Your task to perform on an android device: toggle location history Image 0: 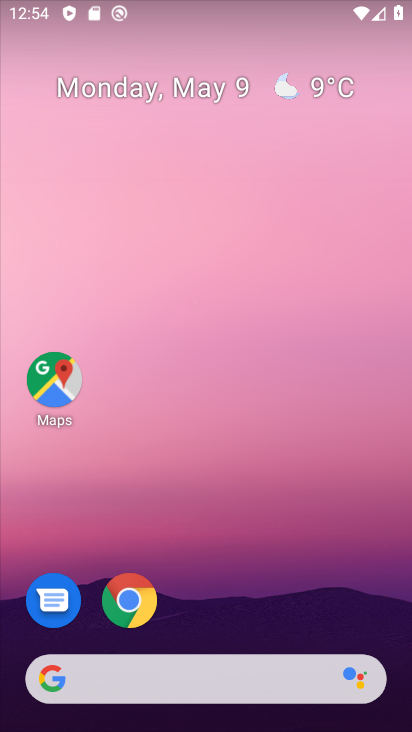
Step 0: drag from (201, 654) to (222, 371)
Your task to perform on an android device: toggle location history Image 1: 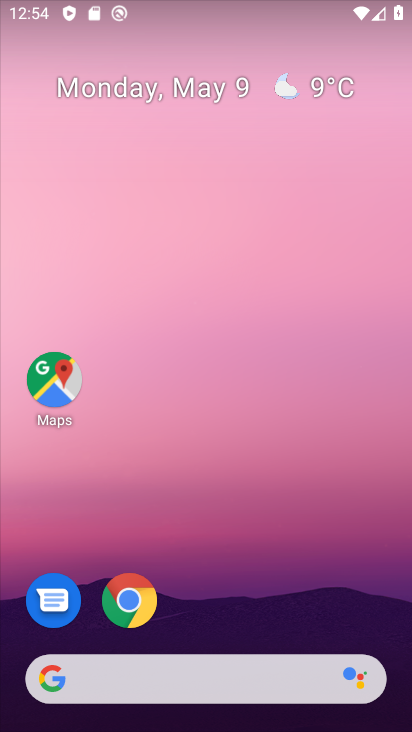
Step 1: drag from (223, 652) to (394, 90)
Your task to perform on an android device: toggle location history Image 2: 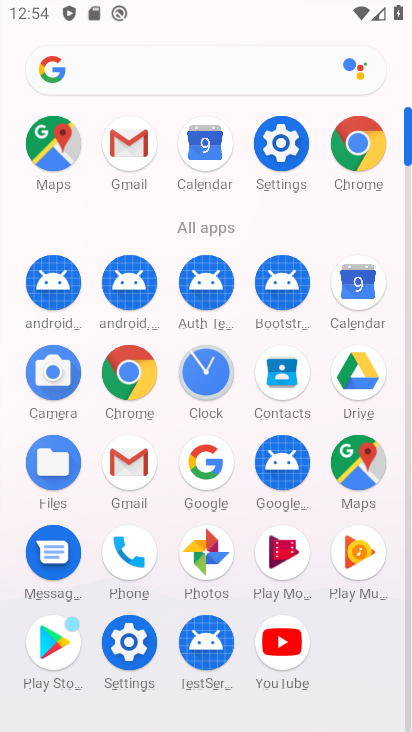
Step 2: click (129, 644)
Your task to perform on an android device: toggle location history Image 3: 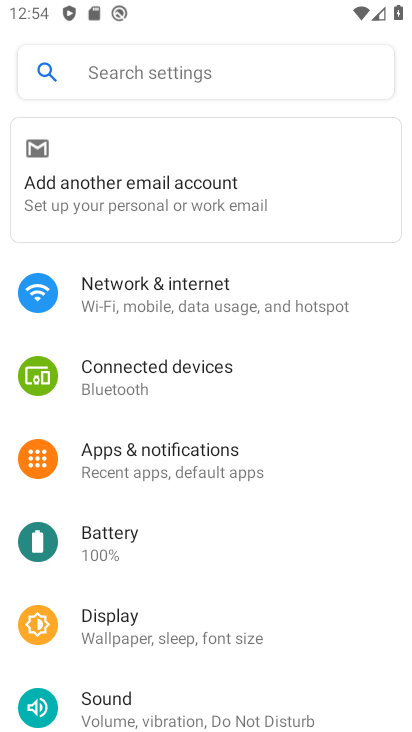
Step 3: drag from (158, 655) to (198, 513)
Your task to perform on an android device: toggle location history Image 4: 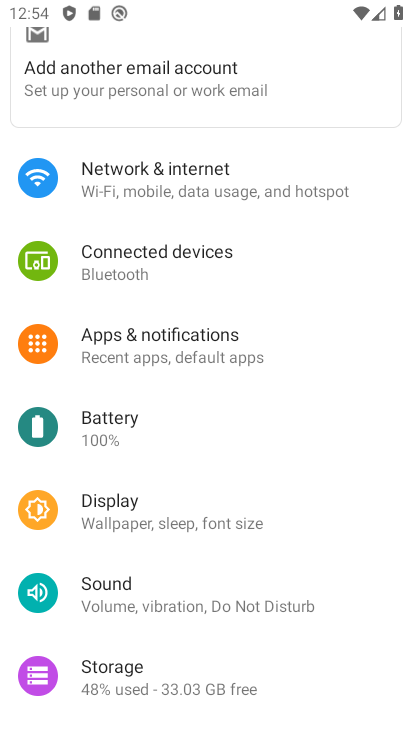
Step 4: drag from (176, 608) to (238, 427)
Your task to perform on an android device: toggle location history Image 5: 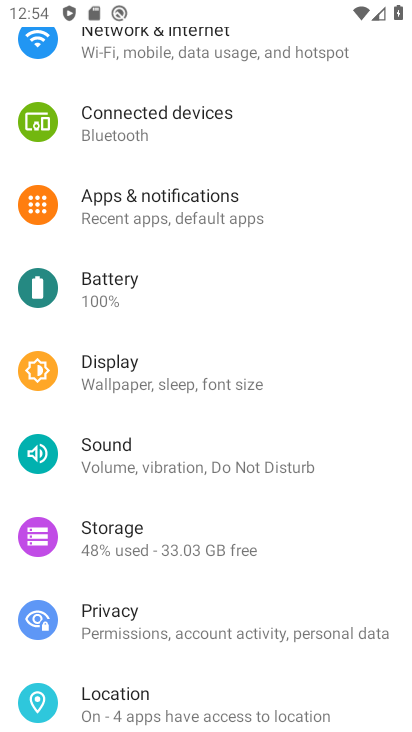
Step 5: click (211, 686)
Your task to perform on an android device: toggle location history Image 6: 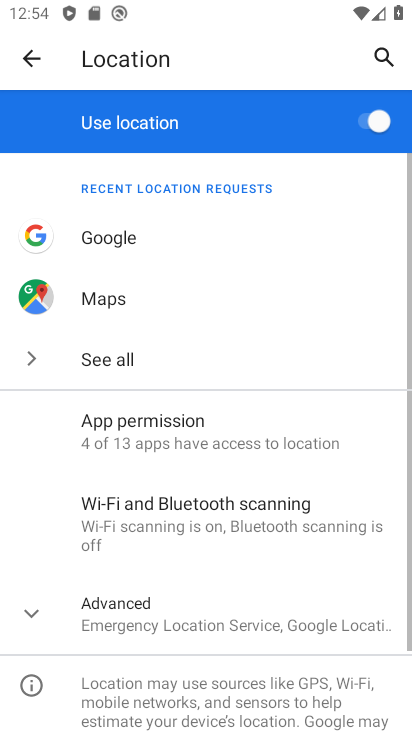
Step 6: click (281, 635)
Your task to perform on an android device: toggle location history Image 7: 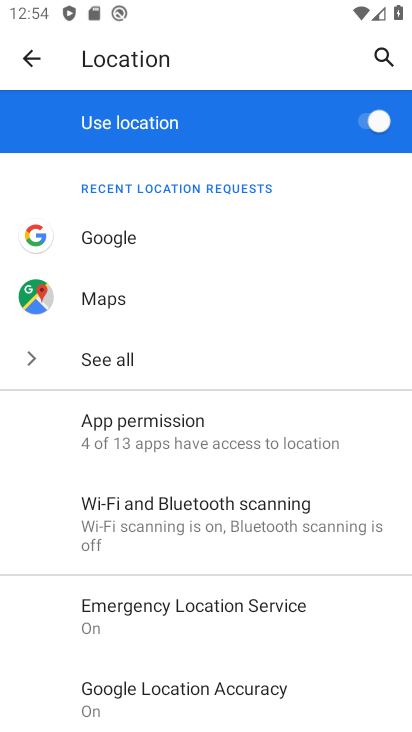
Step 7: drag from (318, 709) to (349, 507)
Your task to perform on an android device: toggle location history Image 8: 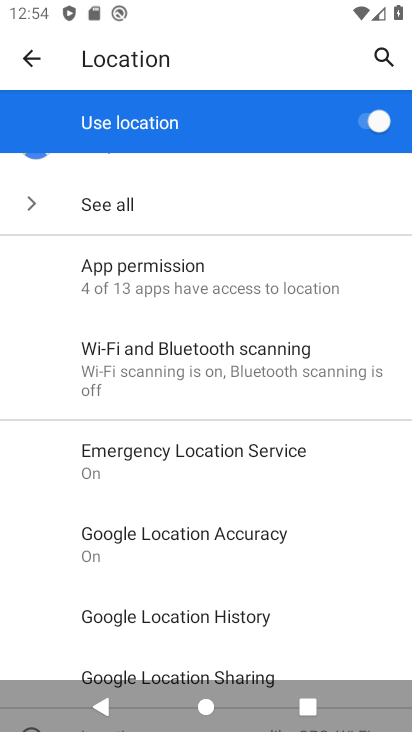
Step 8: click (243, 614)
Your task to perform on an android device: toggle location history Image 9: 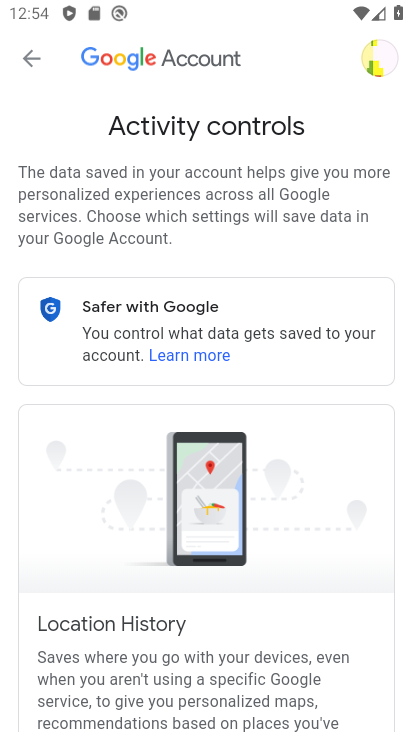
Step 9: drag from (274, 617) to (379, 347)
Your task to perform on an android device: toggle location history Image 10: 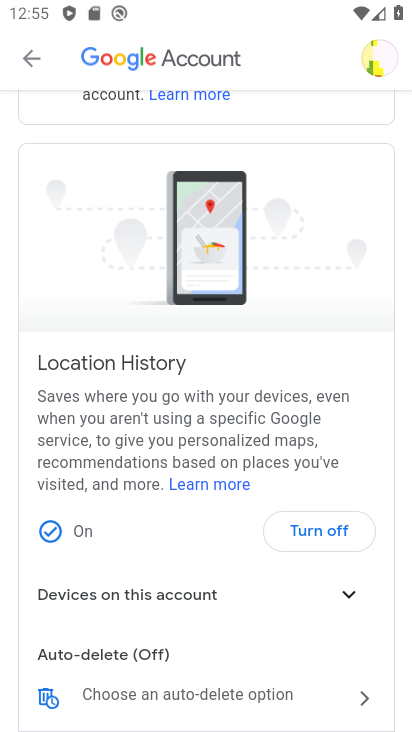
Step 10: click (350, 524)
Your task to perform on an android device: toggle location history Image 11: 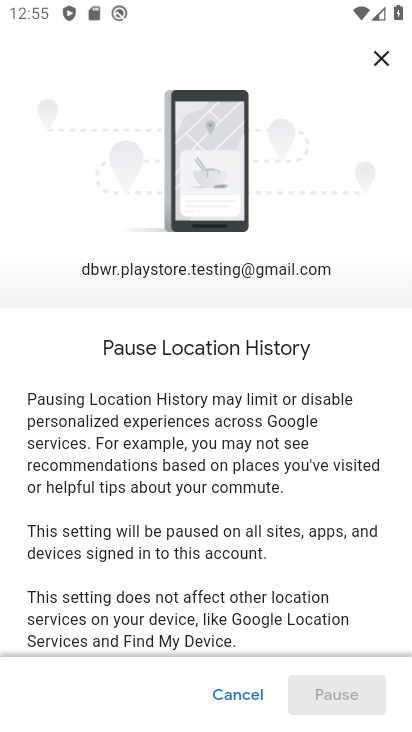
Step 11: drag from (177, 604) to (296, 293)
Your task to perform on an android device: toggle location history Image 12: 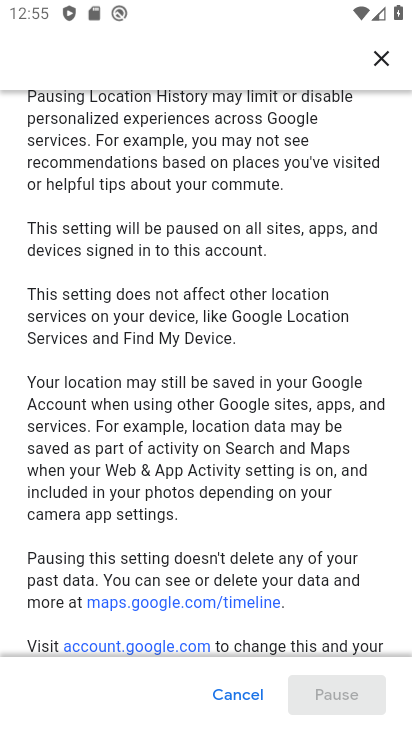
Step 12: drag from (276, 642) to (292, 547)
Your task to perform on an android device: toggle location history Image 13: 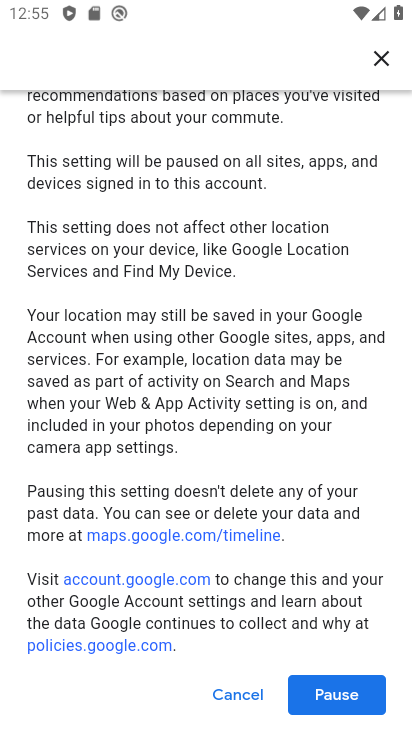
Step 13: click (364, 704)
Your task to perform on an android device: toggle location history Image 14: 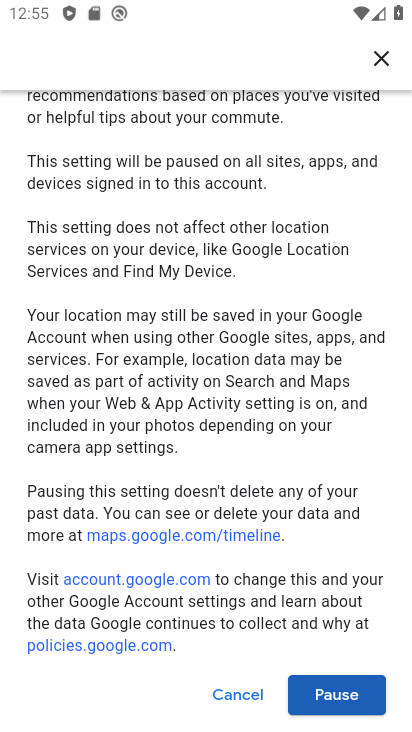
Step 14: click (364, 704)
Your task to perform on an android device: toggle location history Image 15: 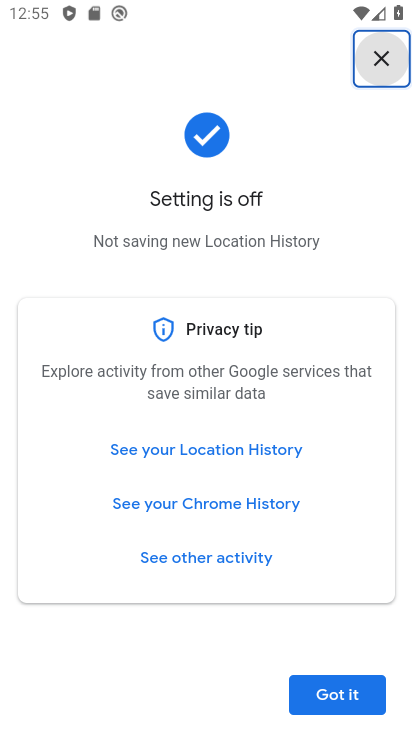
Step 15: click (364, 704)
Your task to perform on an android device: toggle location history Image 16: 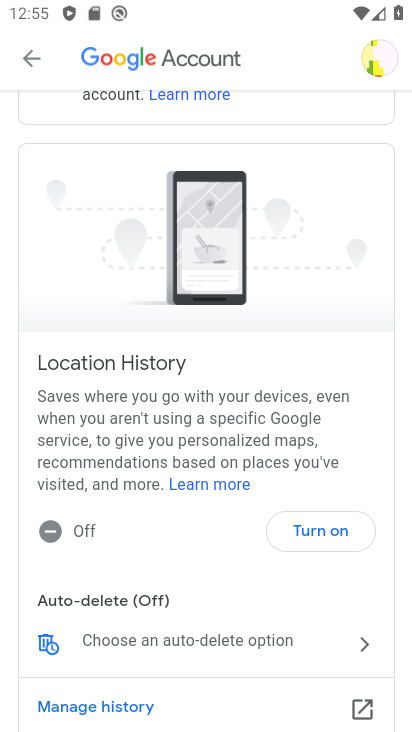
Step 16: task complete